Your task to perform on an android device: turn on data saver in the chrome app Image 0: 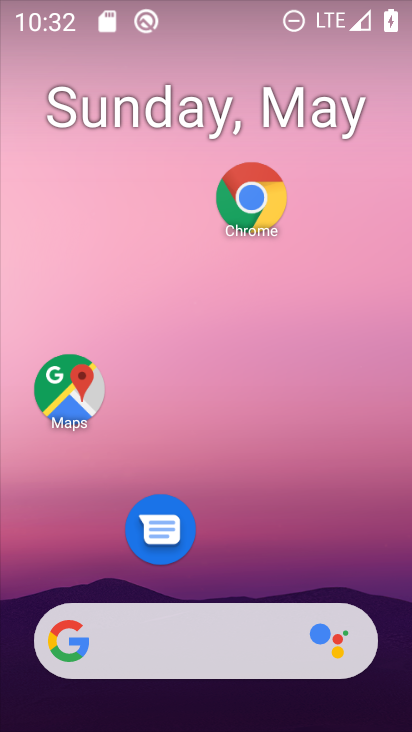
Step 0: drag from (291, 523) to (323, 101)
Your task to perform on an android device: turn on data saver in the chrome app Image 1: 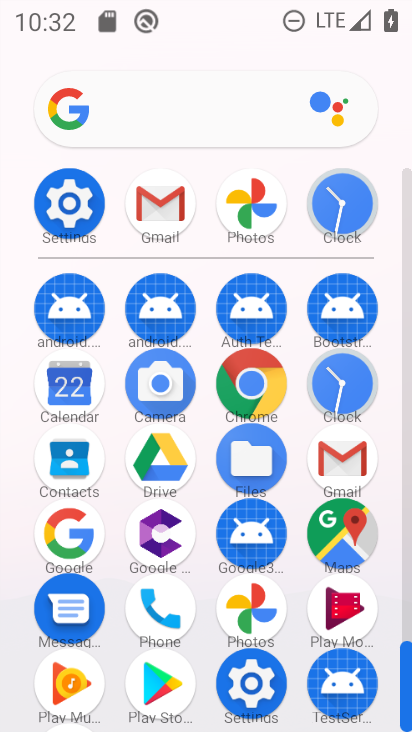
Step 1: click (250, 384)
Your task to perform on an android device: turn on data saver in the chrome app Image 2: 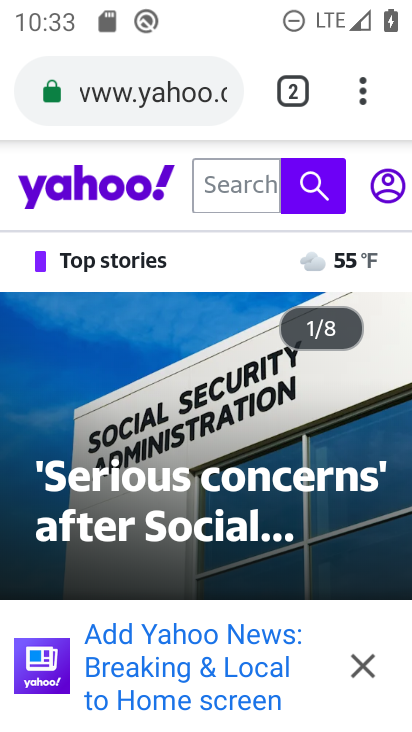
Step 2: click (352, 89)
Your task to perform on an android device: turn on data saver in the chrome app Image 3: 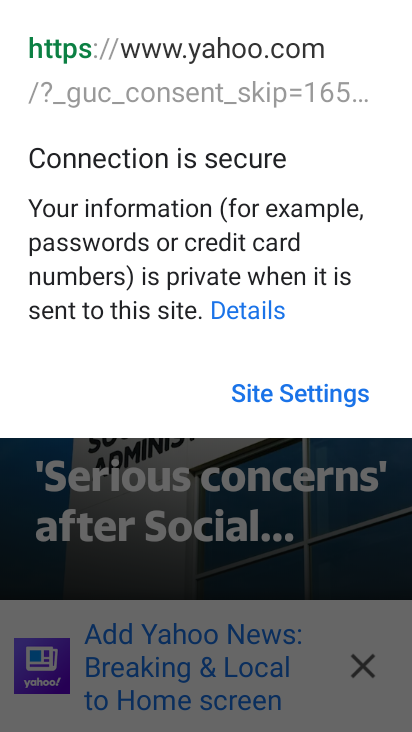
Step 3: press back button
Your task to perform on an android device: turn on data saver in the chrome app Image 4: 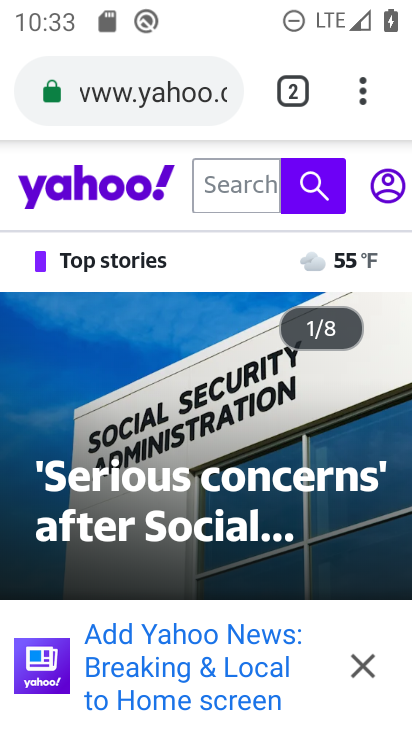
Step 4: click (366, 80)
Your task to perform on an android device: turn on data saver in the chrome app Image 5: 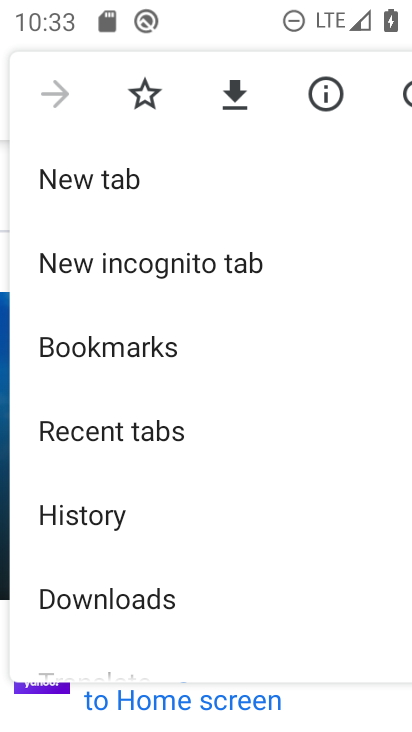
Step 5: drag from (147, 619) to (203, 353)
Your task to perform on an android device: turn on data saver in the chrome app Image 6: 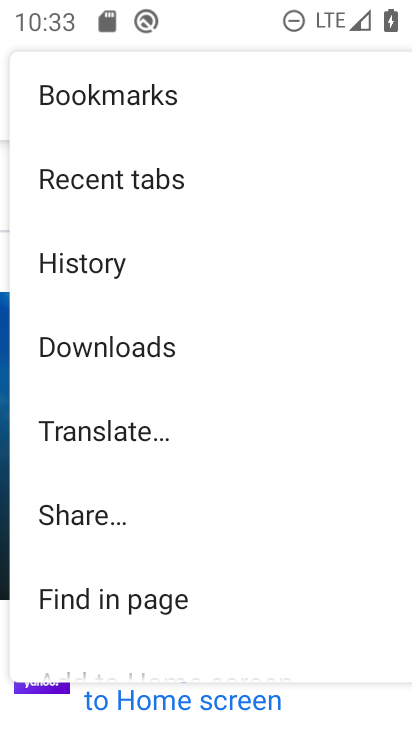
Step 6: drag from (221, 605) to (207, 401)
Your task to perform on an android device: turn on data saver in the chrome app Image 7: 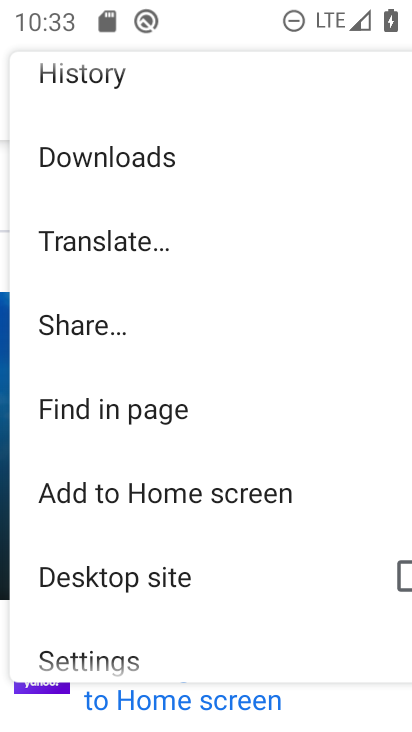
Step 7: drag from (200, 645) to (202, 421)
Your task to perform on an android device: turn on data saver in the chrome app Image 8: 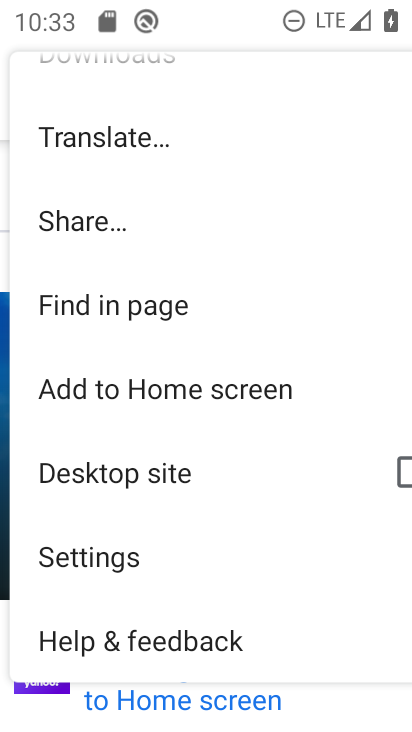
Step 8: click (117, 553)
Your task to perform on an android device: turn on data saver in the chrome app Image 9: 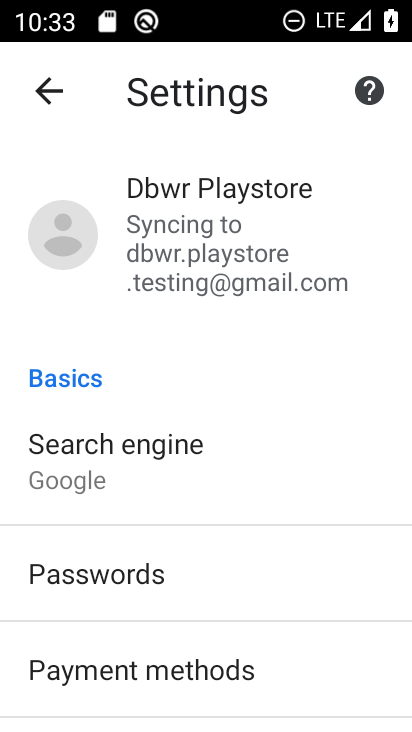
Step 9: drag from (295, 678) to (311, 357)
Your task to perform on an android device: turn on data saver in the chrome app Image 10: 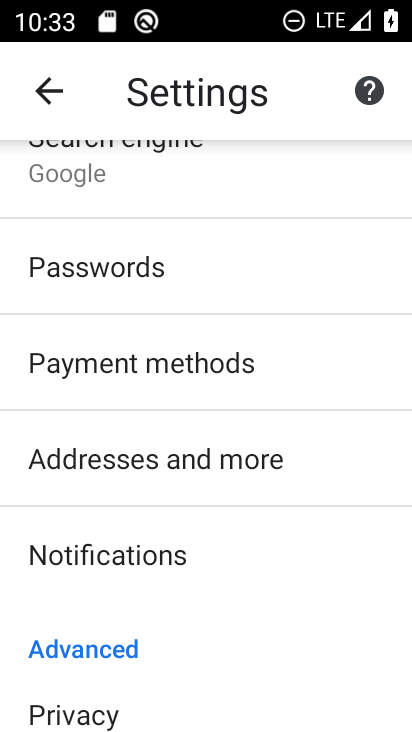
Step 10: drag from (223, 656) to (175, 429)
Your task to perform on an android device: turn on data saver in the chrome app Image 11: 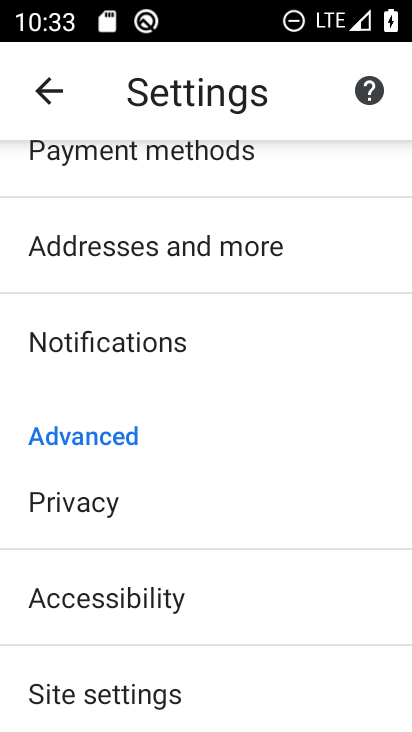
Step 11: drag from (220, 653) to (266, 421)
Your task to perform on an android device: turn on data saver in the chrome app Image 12: 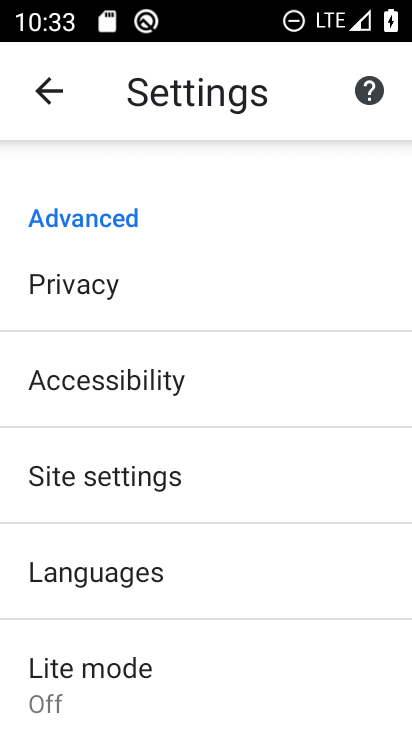
Step 12: click (264, 673)
Your task to perform on an android device: turn on data saver in the chrome app Image 13: 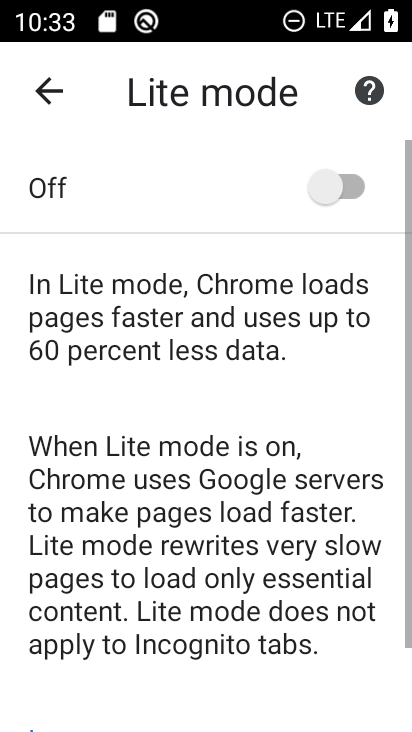
Step 13: click (344, 186)
Your task to perform on an android device: turn on data saver in the chrome app Image 14: 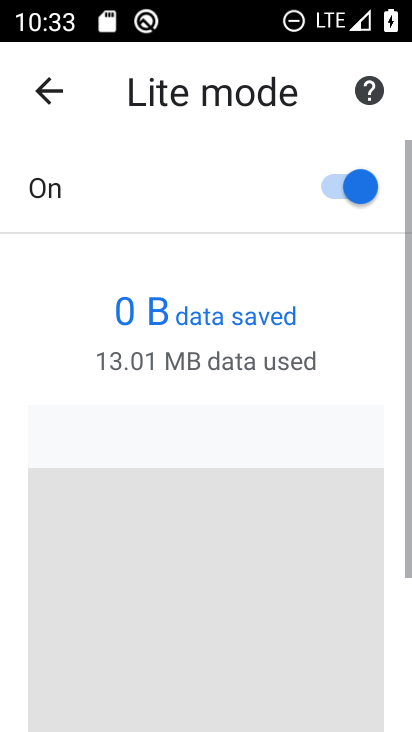
Step 14: task complete